Your task to perform on an android device: Open Youtube and go to the subscriptions tab Image 0: 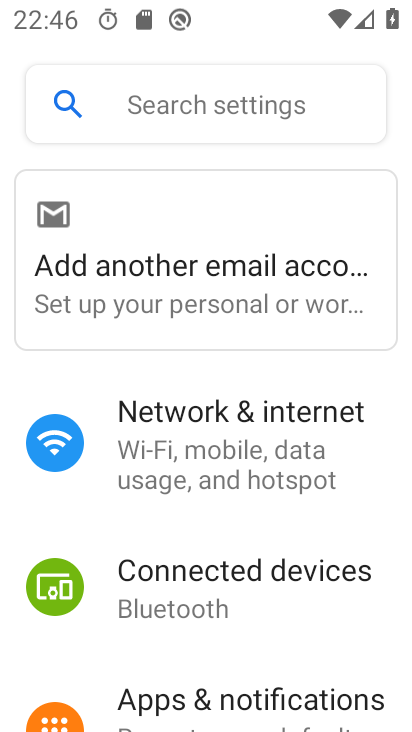
Step 0: press home button
Your task to perform on an android device: Open Youtube and go to the subscriptions tab Image 1: 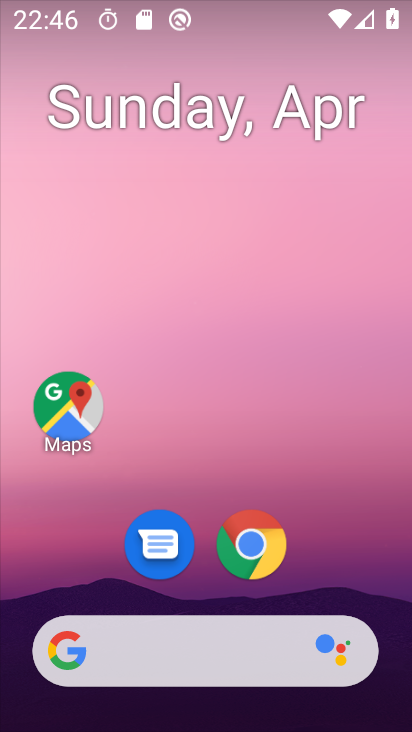
Step 1: drag from (318, 511) to (330, 209)
Your task to perform on an android device: Open Youtube and go to the subscriptions tab Image 2: 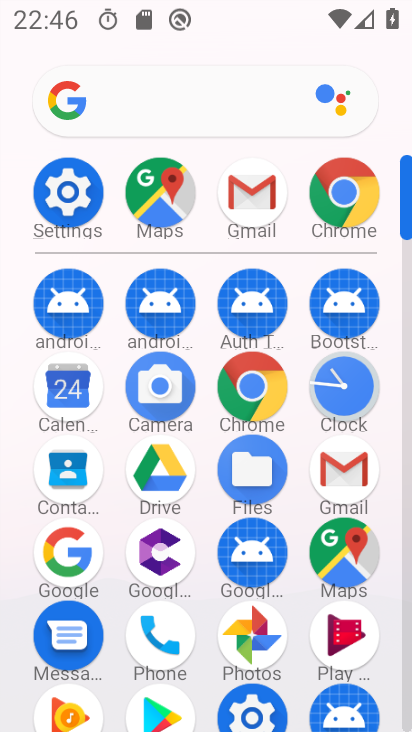
Step 2: drag from (300, 621) to (395, 233)
Your task to perform on an android device: Open Youtube and go to the subscriptions tab Image 3: 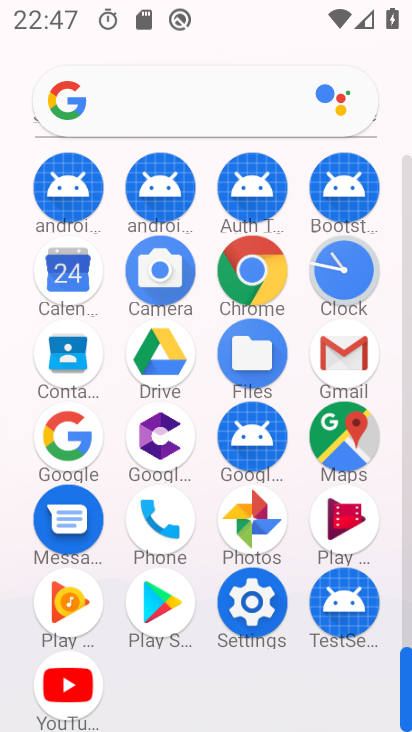
Step 3: click (64, 679)
Your task to perform on an android device: Open Youtube and go to the subscriptions tab Image 4: 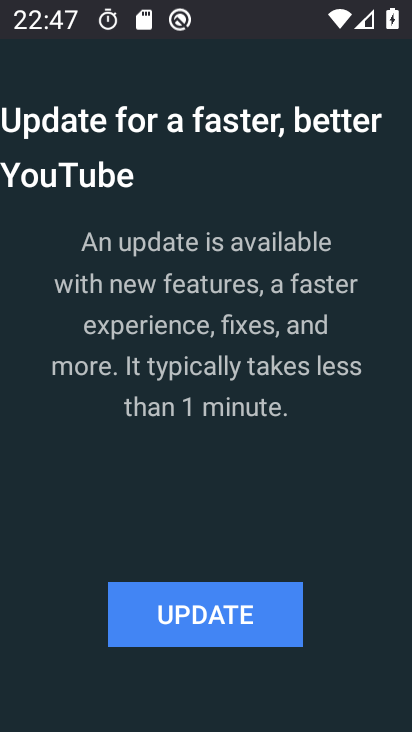
Step 4: task complete